Your task to perform on an android device: Open battery settings Image 0: 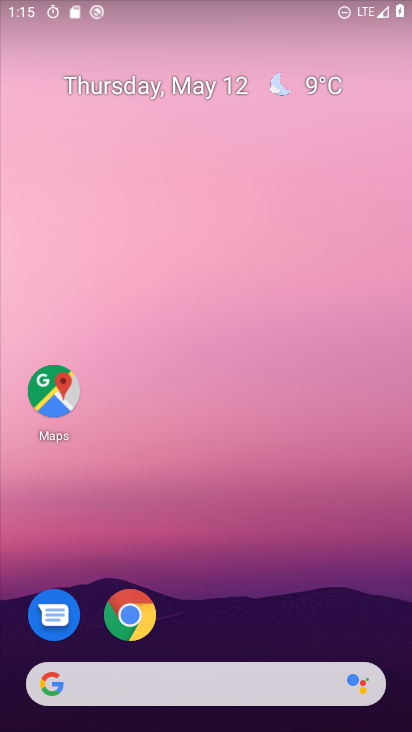
Step 0: drag from (263, 625) to (262, 179)
Your task to perform on an android device: Open battery settings Image 1: 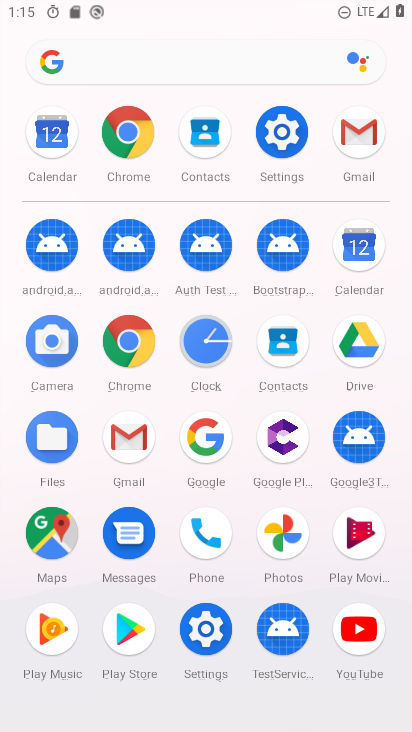
Step 1: click (280, 142)
Your task to perform on an android device: Open battery settings Image 2: 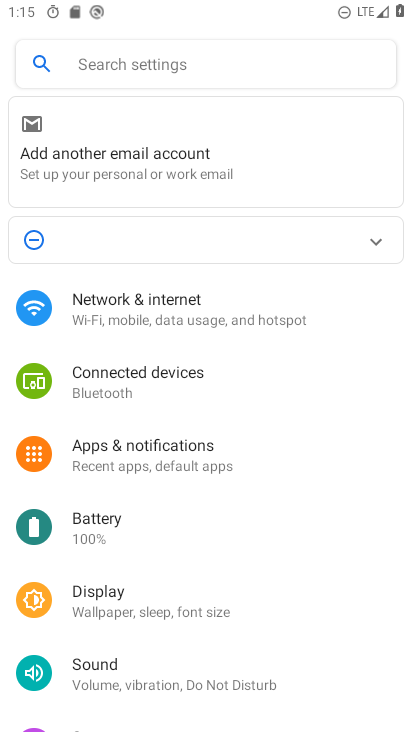
Step 2: click (166, 532)
Your task to perform on an android device: Open battery settings Image 3: 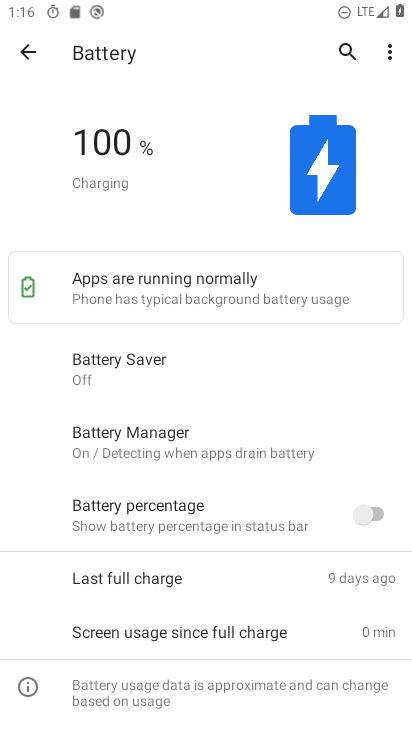
Step 3: task complete